Your task to perform on an android device: See recent photos Image 0: 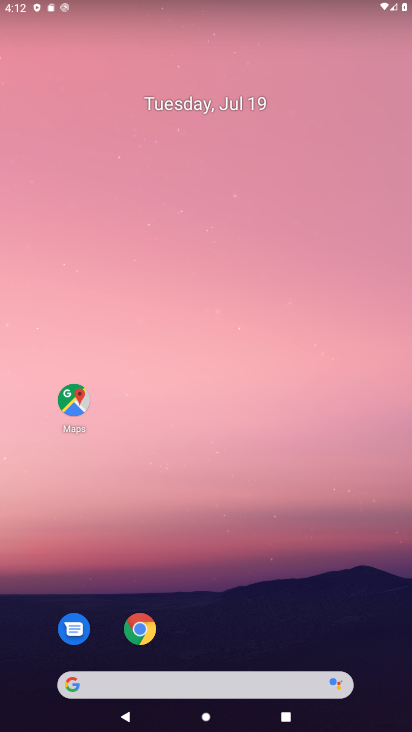
Step 0: drag from (179, 546) to (179, 198)
Your task to perform on an android device: See recent photos Image 1: 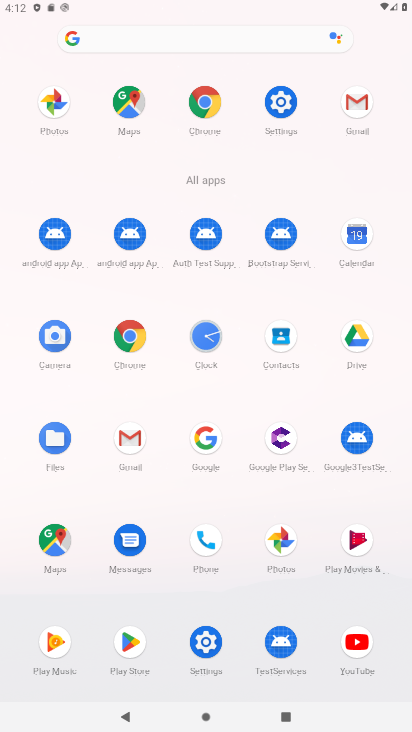
Step 1: click (274, 539)
Your task to perform on an android device: See recent photos Image 2: 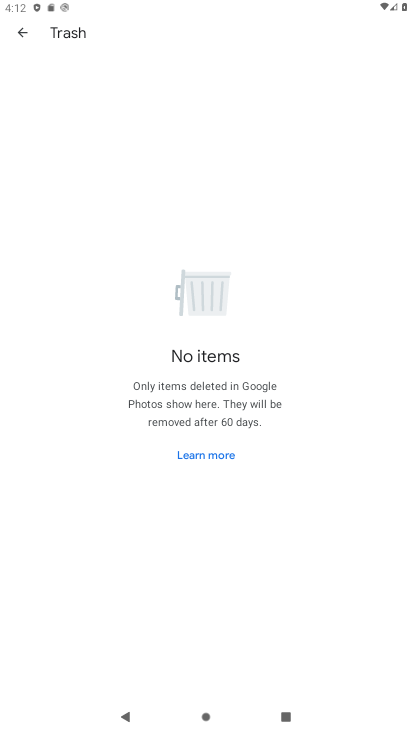
Step 2: click (16, 25)
Your task to perform on an android device: See recent photos Image 3: 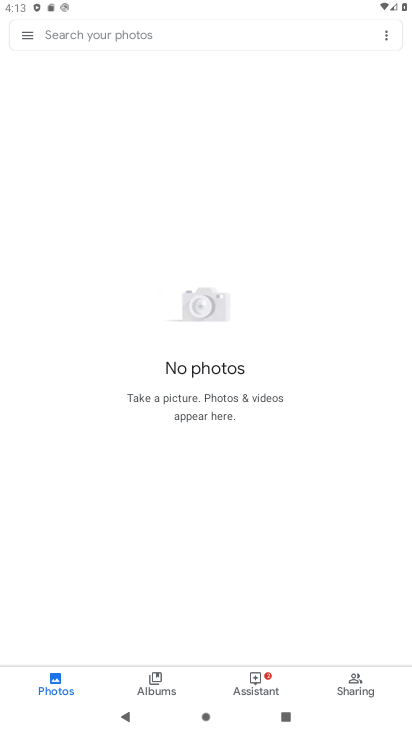
Step 3: task complete